Your task to perform on an android device: Open Wikipedia Image 0: 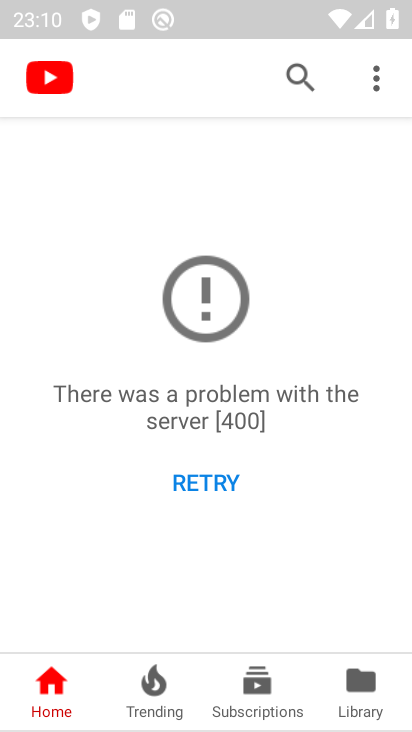
Step 0: press home button
Your task to perform on an android device: Open Wikipedia Image 1: 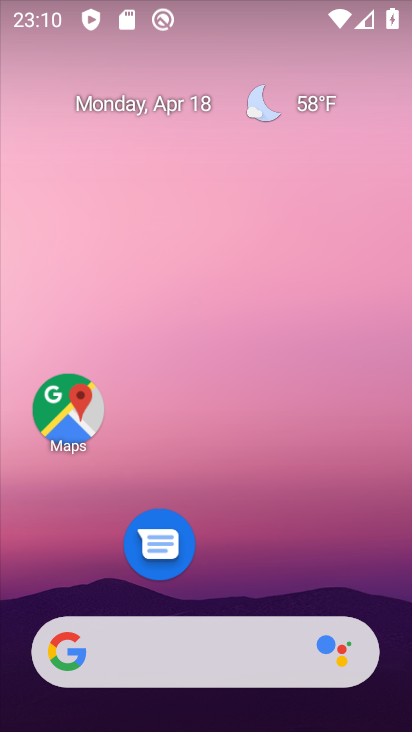
Step 1: drag from (283, 531) to (320, 47)
Your task to perform on an android device: Open Wikipedia Image 2: 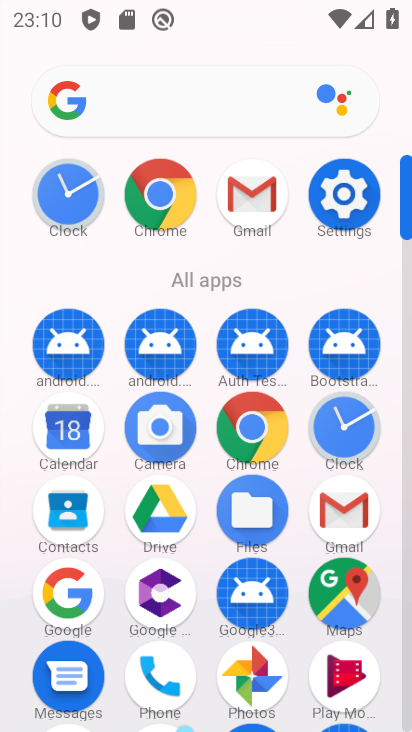
Step 2: click (155, 191)
Your task to perform on an android device: Open Wikipedia Image 3: 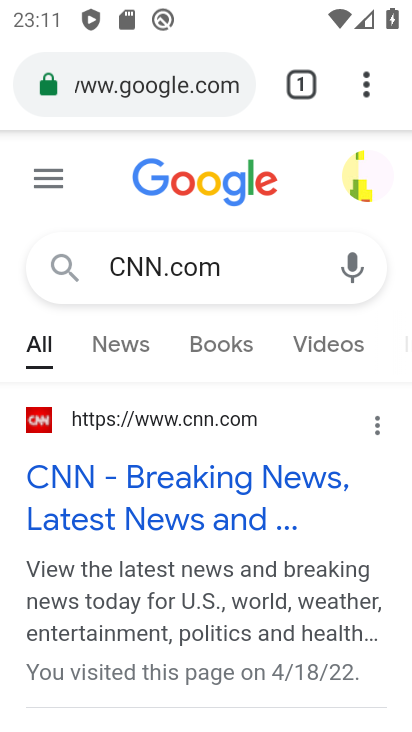
Step 3: click (231, 86)
Your task to perform on an android device: Open Wikipedia Image 4: 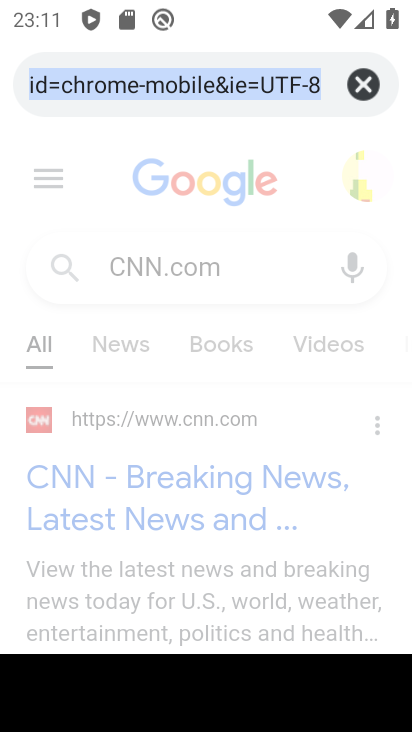
Step 4: click (359, 82)
Your task to perform on an android device: Open Wikipedia Image 5: 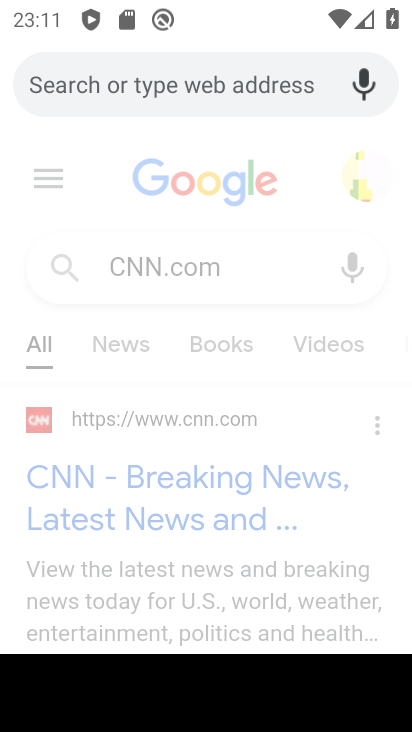
Step 5: type "Wikipedia"
Your task to perform on an android device: Open Wikipedia Image 6: 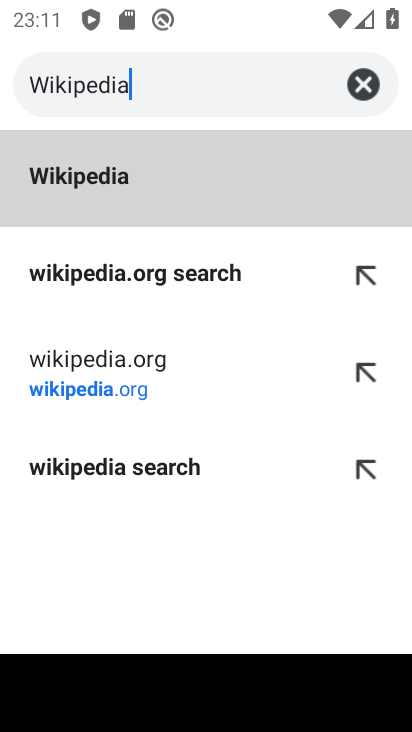
Step 6: click (109, 185)
Your task to perform on an android device: Open Wikipedia Image 7: 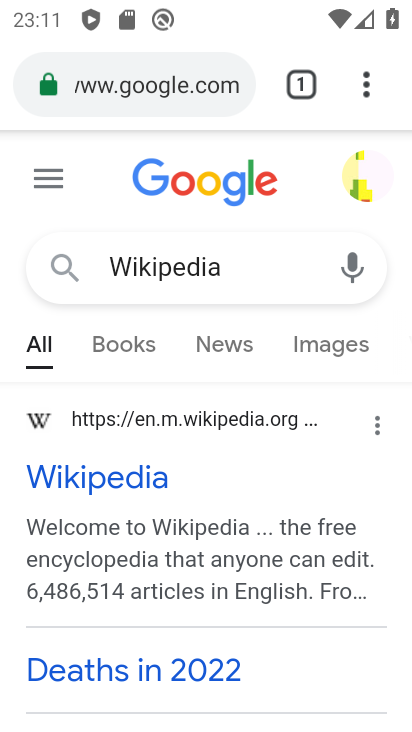
Step 7: task complete